Your task to perform on an android device: turn vacation reply on in the gmail app Image 0: 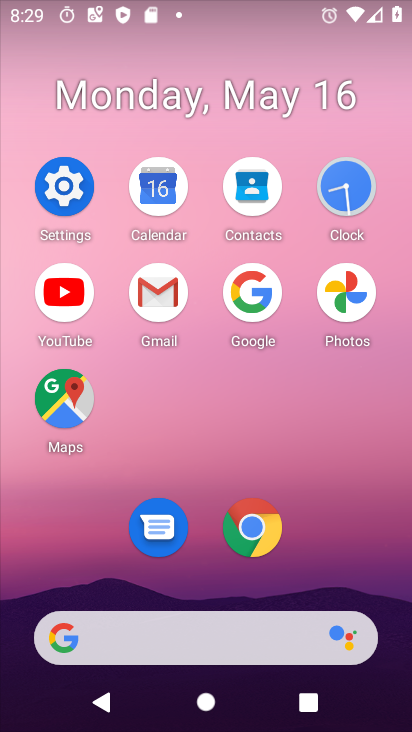
Step 0: click (165, 287)
Your task to perform on an android device: turn vacation reply on in the gmail app Image 1: 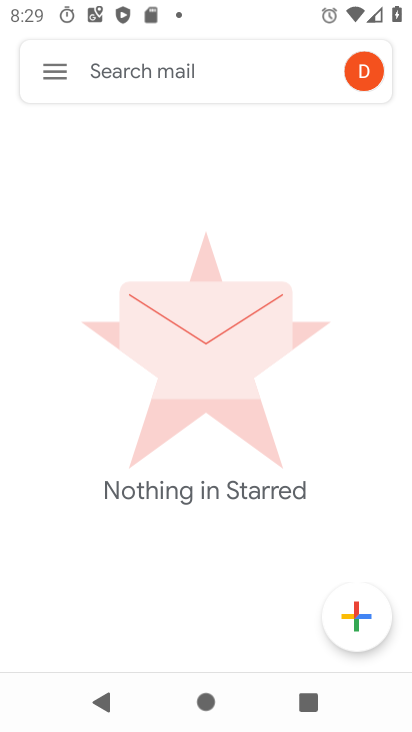
Step 1: click (51, 72)
Your task to perform on an android device: turn vacation reply on in the gmail app Image 2: 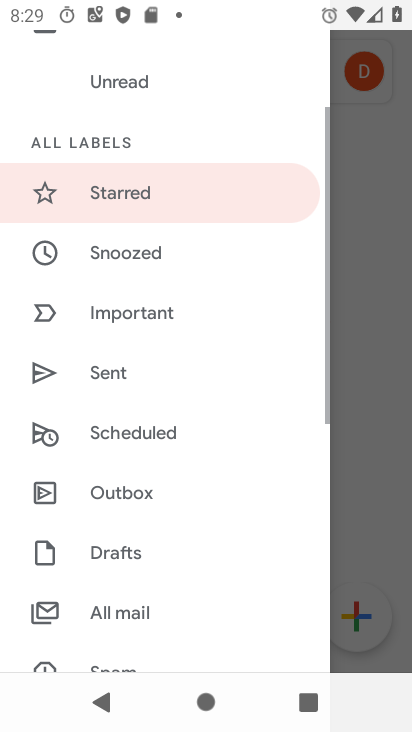
Step 2: drag from (139, 610) to (184, 179)
Your task to perform on an android device: turn vacation reply on in the gmail app Image 3: 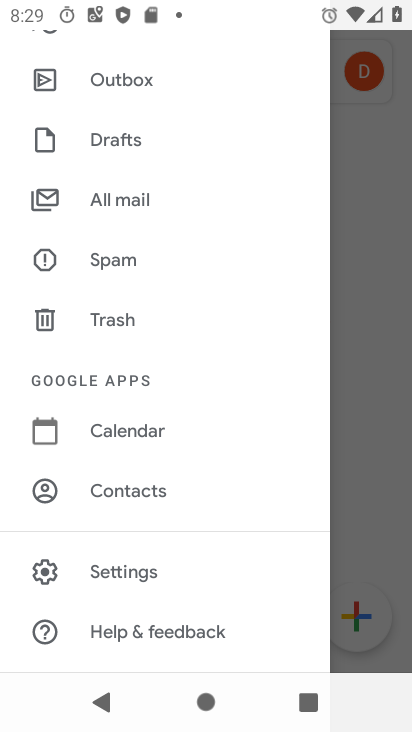
Step 3: click (213, 570)
Your task to perform on an android device: turn vacation reply on in the gmail app Image 4: 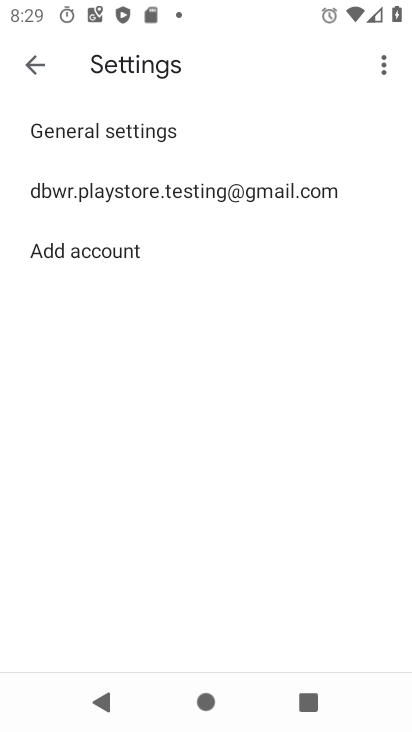
Step 4: click (201, 207)
Your task to perform on an android device: turn vacation reply on in the gmail app Image 5: 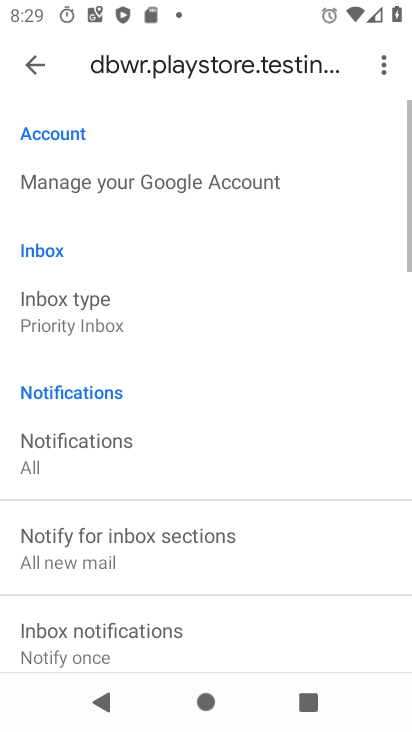
Step 5: drag from (221, 525) to (190, 128)
Your task to perform on an android device: turn vacation reply on in the gmail app Image 6: 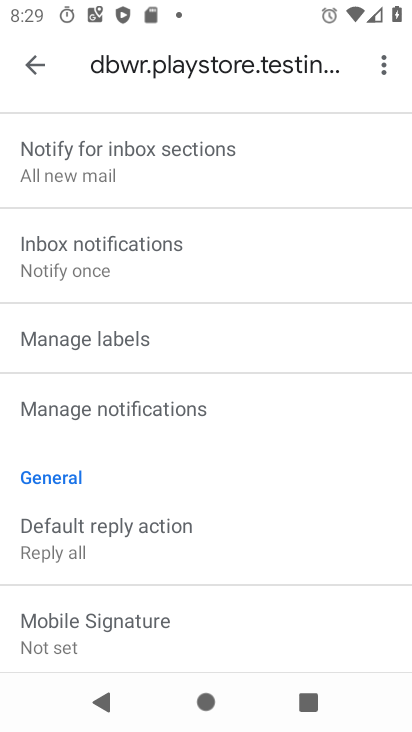
Step 6: drag from (214, 515) to (165, 112)
Your task to perform on an android device: turn vacation reply on in the gmail app Image 7: 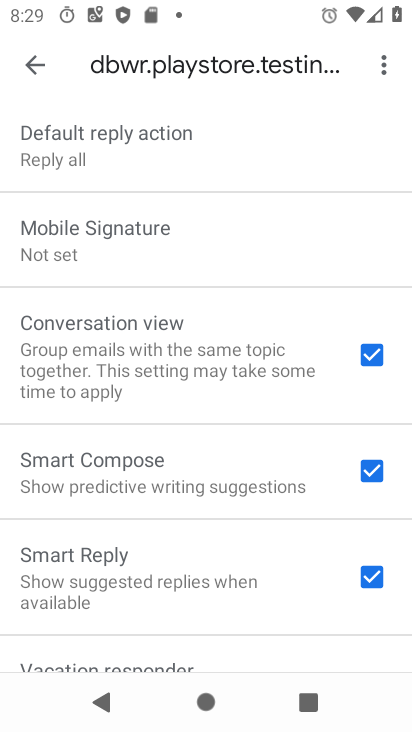
Step 7: drag from (222, 454) to (199, 162)
Your task to perform on an android device: turn vacation reply on in the gmail app Image 8: 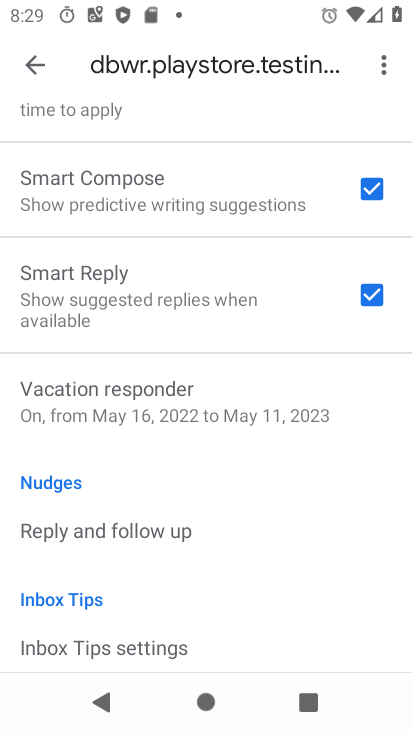
Step 8: click (228, 411)
Your task to perform on an android device: turn vacation reply on in the gmail app Image 9: 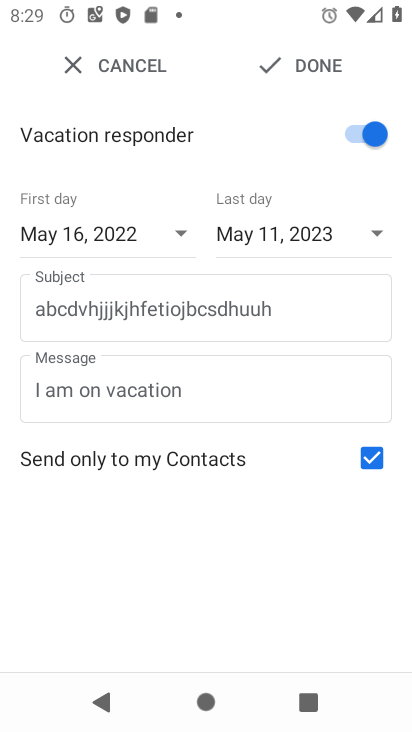
Step 9: click (329, 55)
Your task to perform on an android device: turn vacation reply on in the gmail app Image 10: 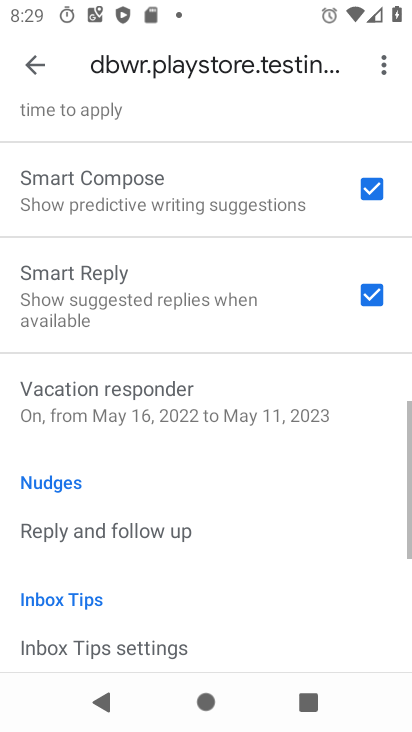
Step 10: task complete